Your task to perform on an android device: Open display settings Image 0: 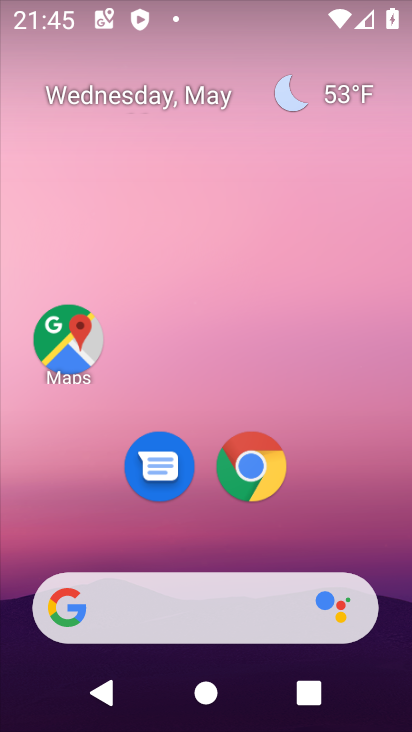
Step 0: drag from (195, 481) to (295, 98)
Your task to perform on an android device: Open display settings Image 1: 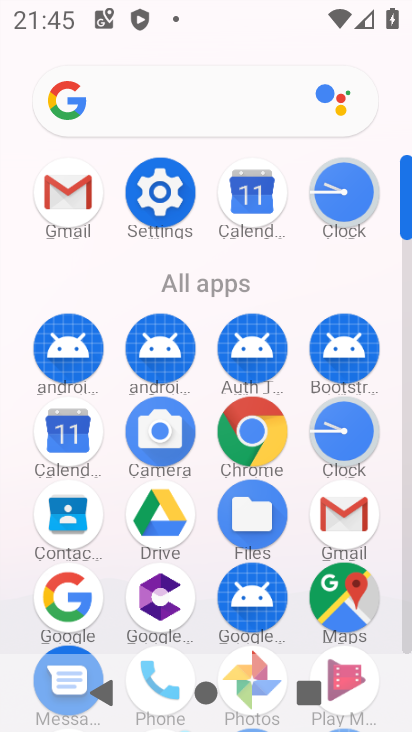
Step 1: click (156, 200)
Your task to perform on an android device: Open display settings Image 2: 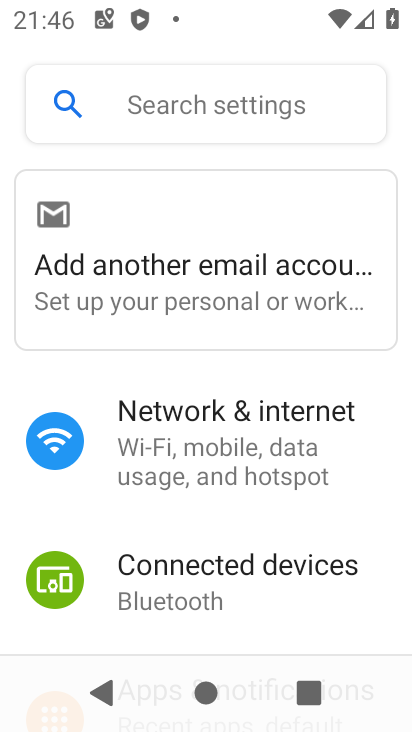
Step 2: drag from (226, 607) to (310, 192)
Your task to perform on an android device: Open display settings Image 3: 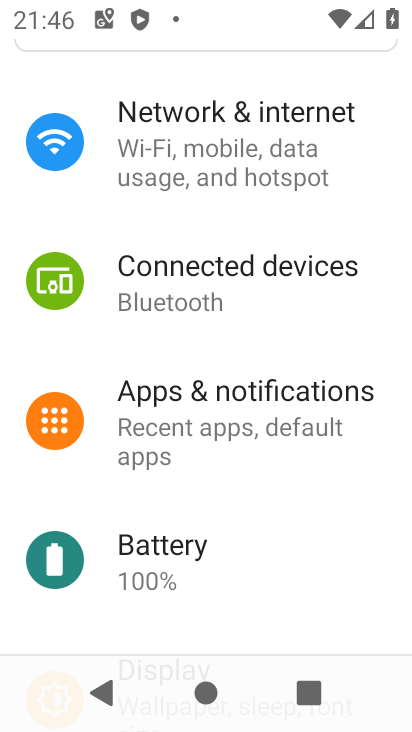
Step 3: drag from (176, 583) to (261, 305)
Your task to perform on an android device: Open display settings Image 4: 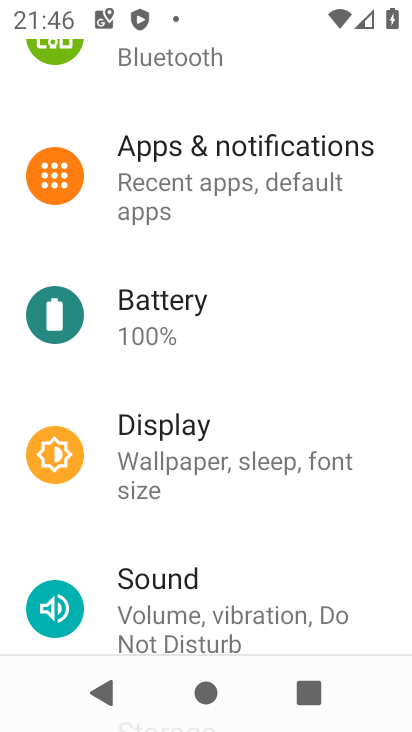
Step 4: click (188, 459)
Your task to perform on an android device: Open display settings Image 5: 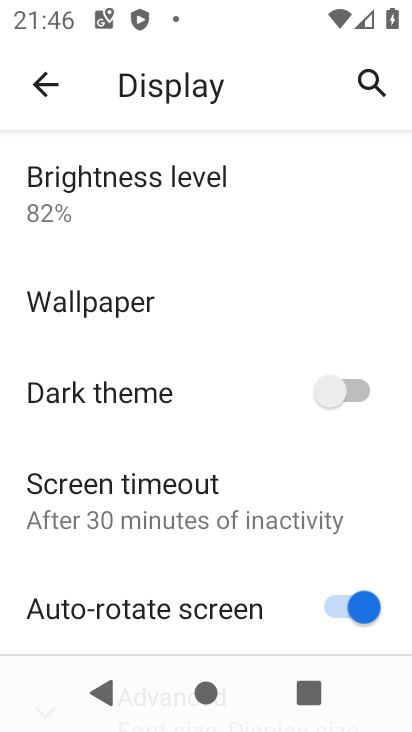
Step 5: task complete